Your task to perform on an android device: remove spam from my inbox in the gmail app Image 0: 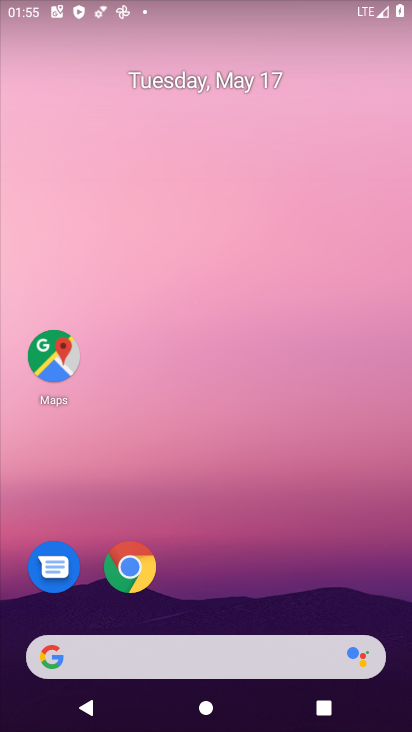
Step 0: drag from (389, 603) to (284, 52)
Your task to perform on an android device: remove spam from my inbox in the gmail app Image 1: 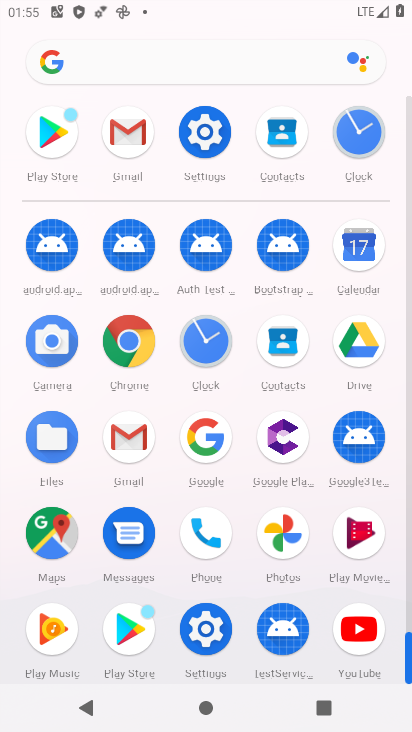
Step 1: click (128, 433)
Your task to perform on an android device: remove spam from my inbox in the gmail app Image 2: 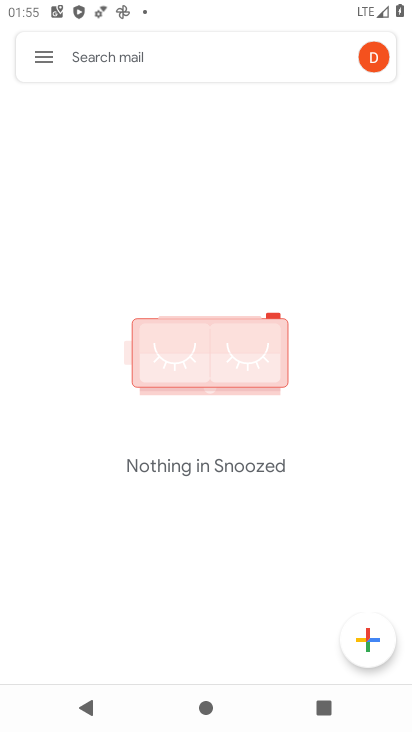
Step 2: click (36, 52)
Your task to perform on an android device: remove spam from my inbox in the gmail app Image 3: 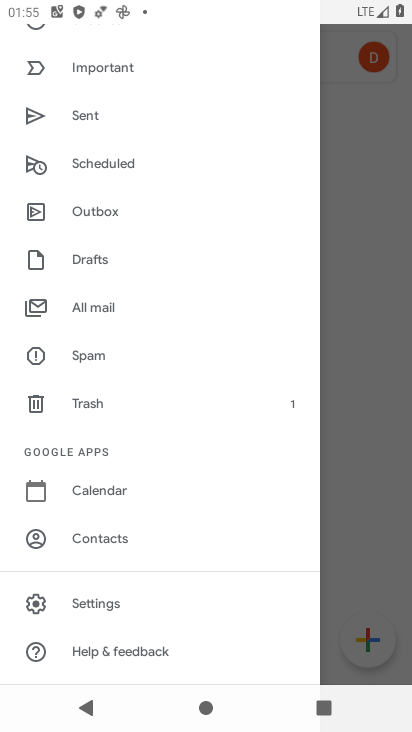
Step 3: click (93, 347)
Your task to perform on an android device: remove spam from my inbox in the gmail app Image 4: 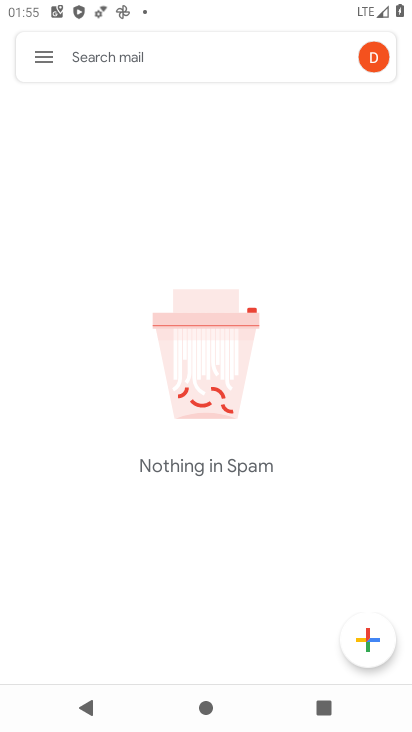
Step 4: task complete